Your task to perform on an android device: Open settings on Google Maps Image 0: 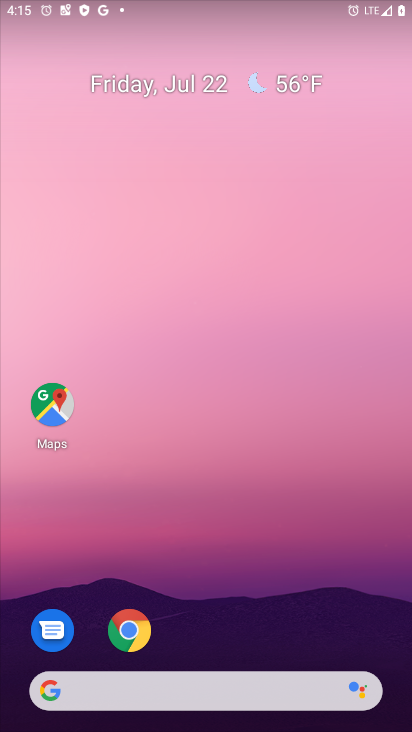
Step 0: click (47, 413)
Your task to perform on an android device: Open settings on Google Maps Image 1: 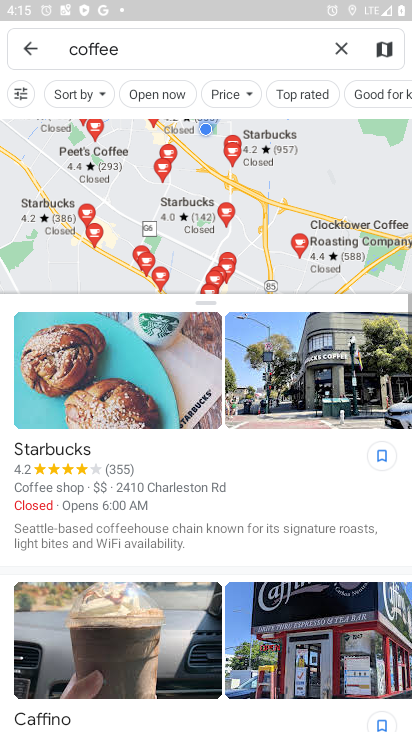
Step 1: click (29, 46)
Your task to perform on an android device: Open settings on Google Maps Image 2: 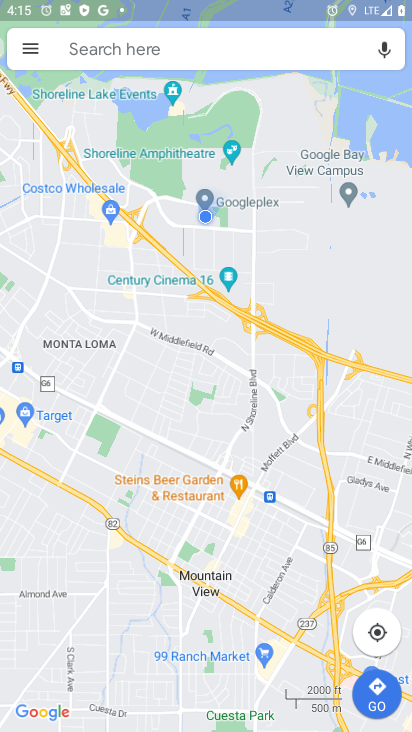
Step 2: click (27, 54)
Your task to perform on an android device: Open settings on Google Maps Image 3: 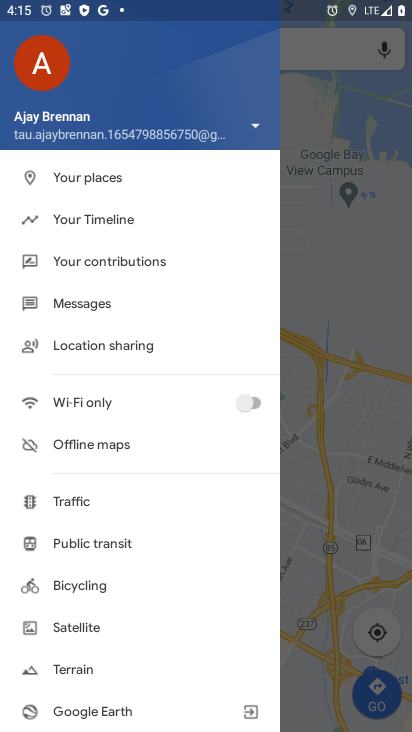
Step 3: drag from (101, 653) to (68, 291)
Your task to perform on an android device: Open settings on Google Maps Image 4: 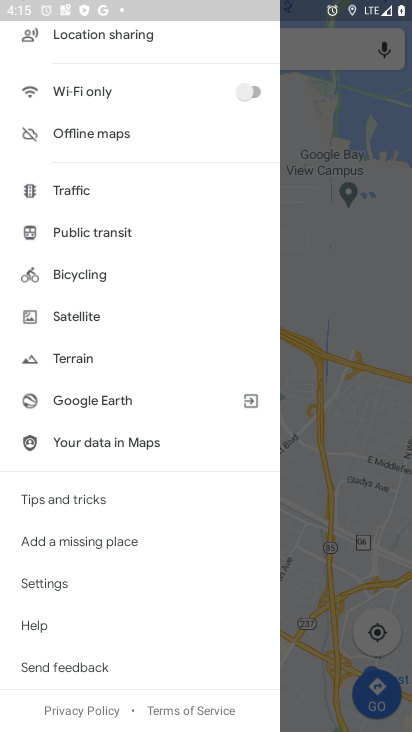
Step 4: click (40, 584)
Your task to perform on an android device: Open settings on Google Maps Image 5: 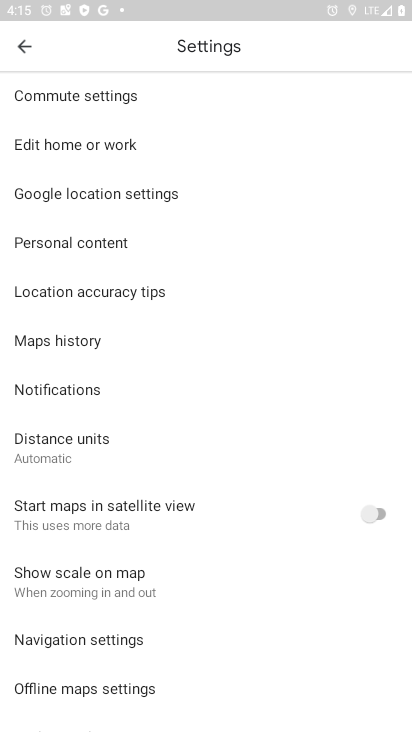
Step 5: task complete